Your task to perform on an android device: Open the stopwatch Image 0: 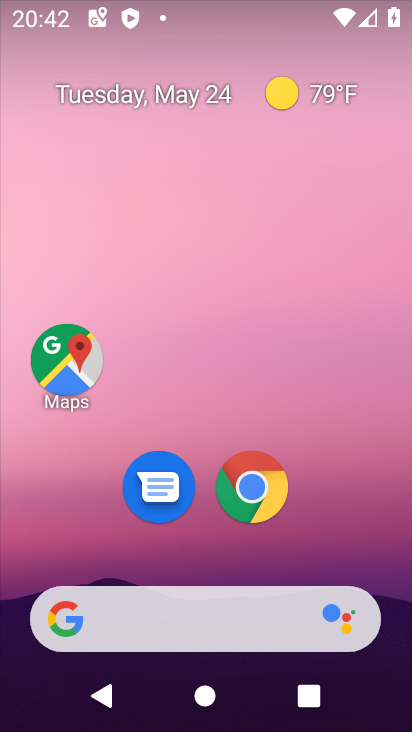
Step 0: drag from (332, 492) to (370, 74)
Your task to perform on an android device: Open the stopwatch Image 1: 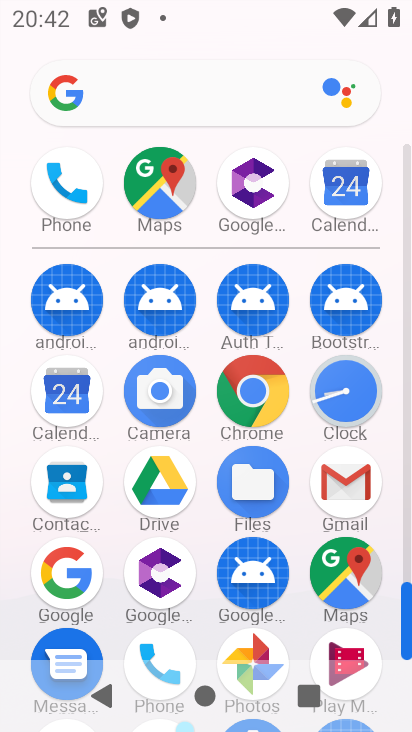
Step 1: click (349, 395)
Your task to perform on an android device: Open the stopwatch Image 2: 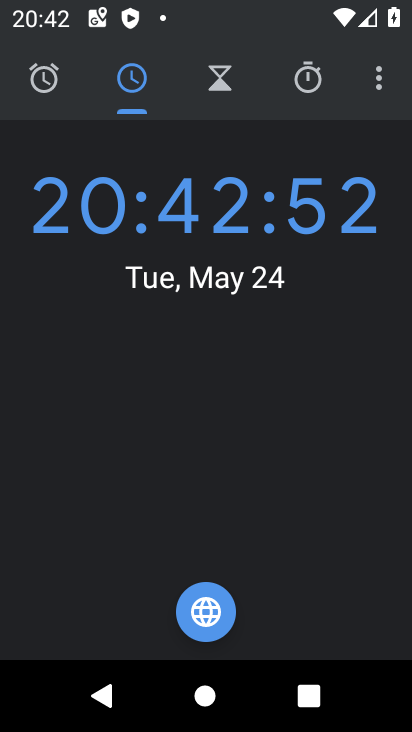
Step 2: click (313, 76)
Your task to perform on an android device: Open the stopwatch Image 3: 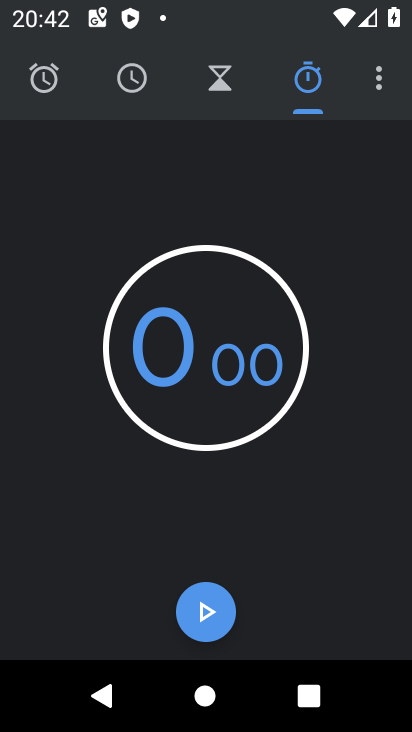
Step 3: task complete